Your task to perform on an android device: toggle notifications settings in the gmail app Image 0: 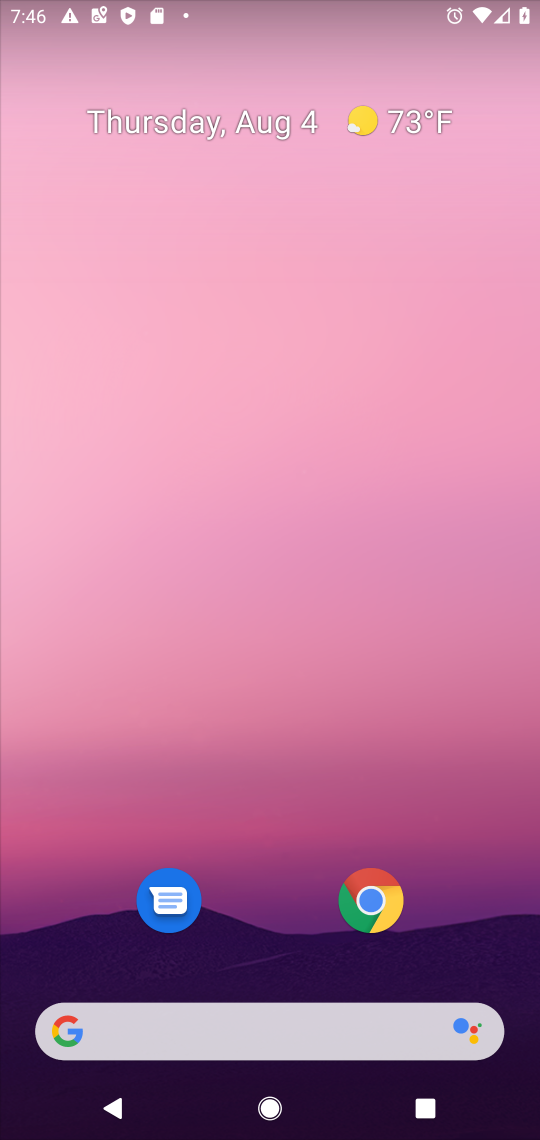
Step 0: drag from (206, 1035) to (440, 61)
Your task to perform on an android device: toggle notifications settings in the gmail app Image 1: 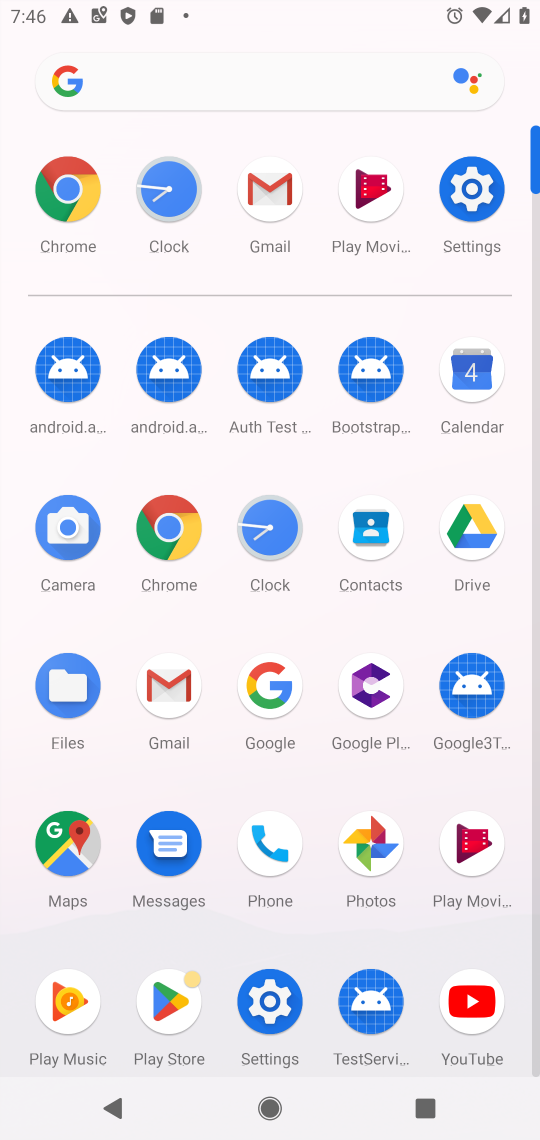
Step 1: click (270, 187)
Your task to perform on an android device: toggle notifications settings in the gmail app Image 2: 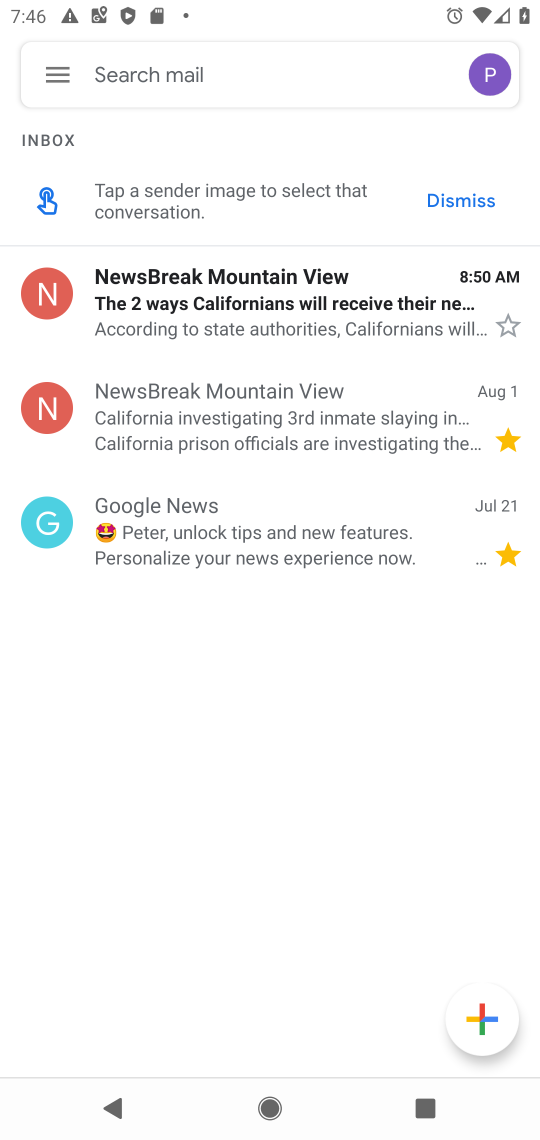
Step 2: click (59, 73)
Your task to perform on an android device: toggle notifications settings in the gmail app Image 3: 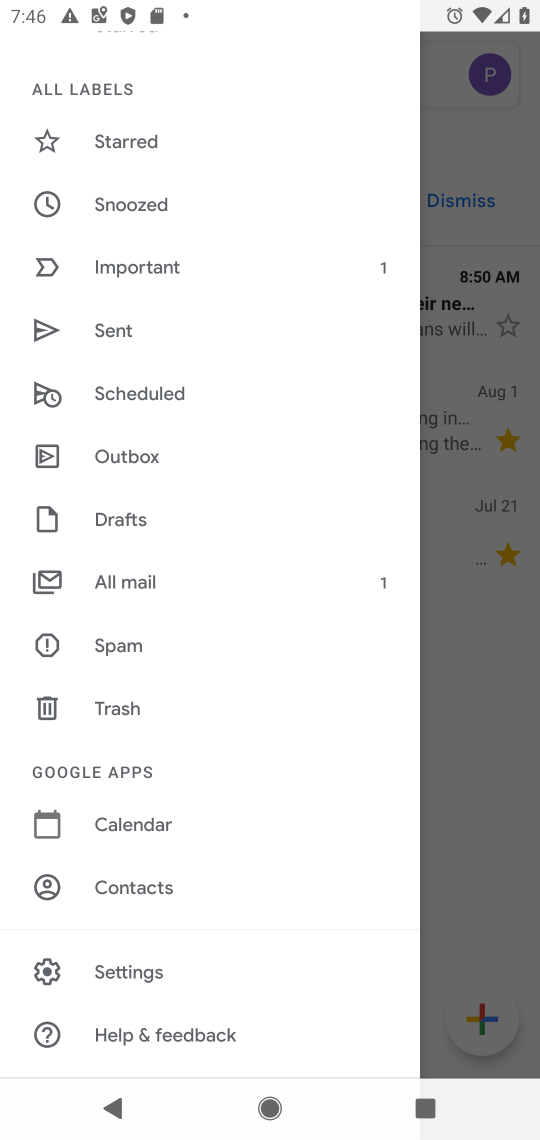
Step 3: click (140, 970)
Your task to perform on an android device: toggle notifications settings in the gmail app Image 4: 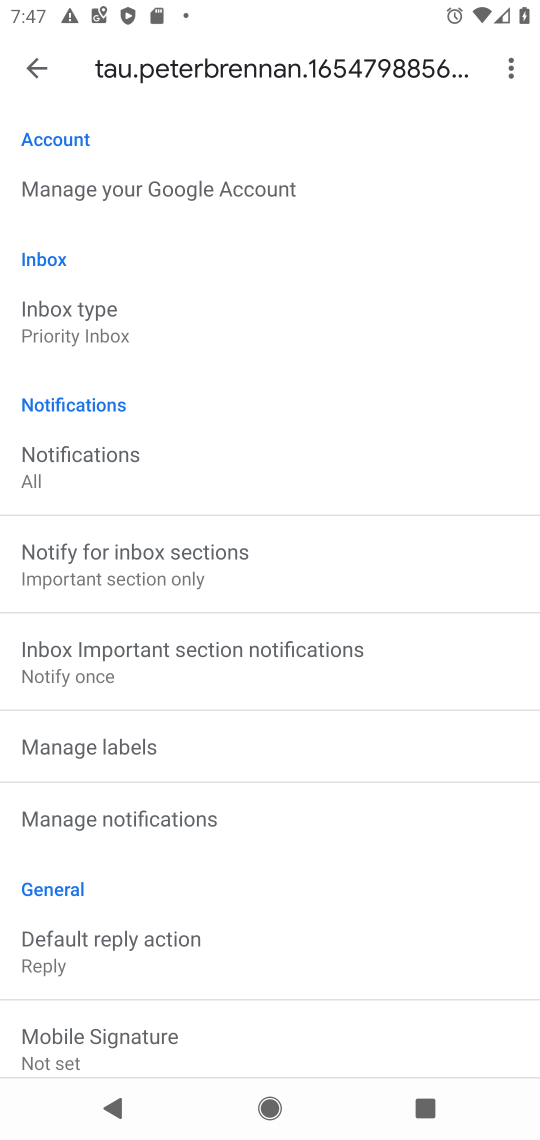
Step 4: click (90, 813)
Your task to perform on an android device: toggle notifications settings in the gmail app Image 5: 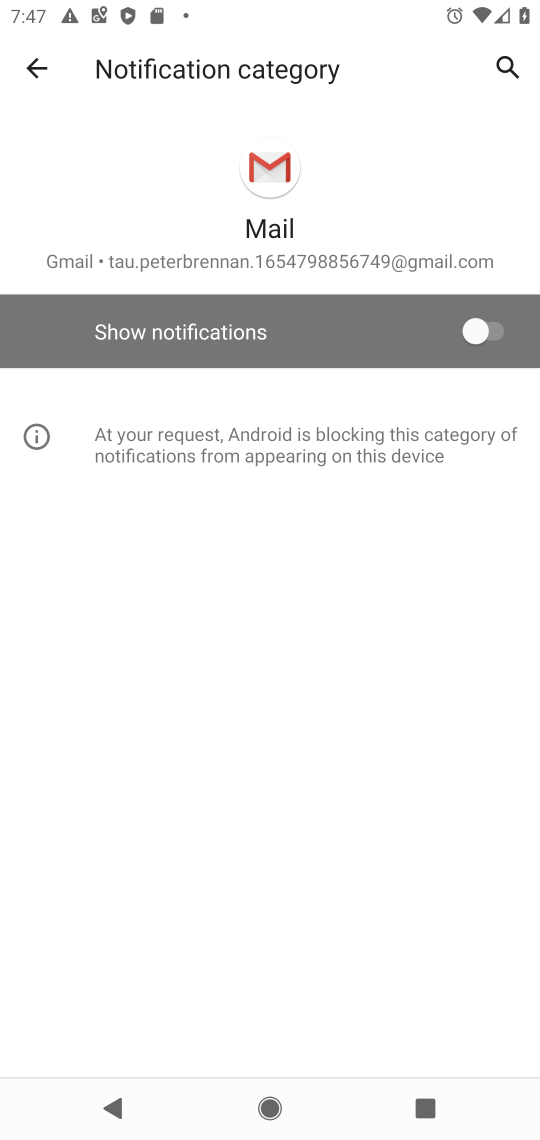
Step 5: click (476, 342)
Your task to perform on an android device: toggle notifications settings in the gmail app Image 6: 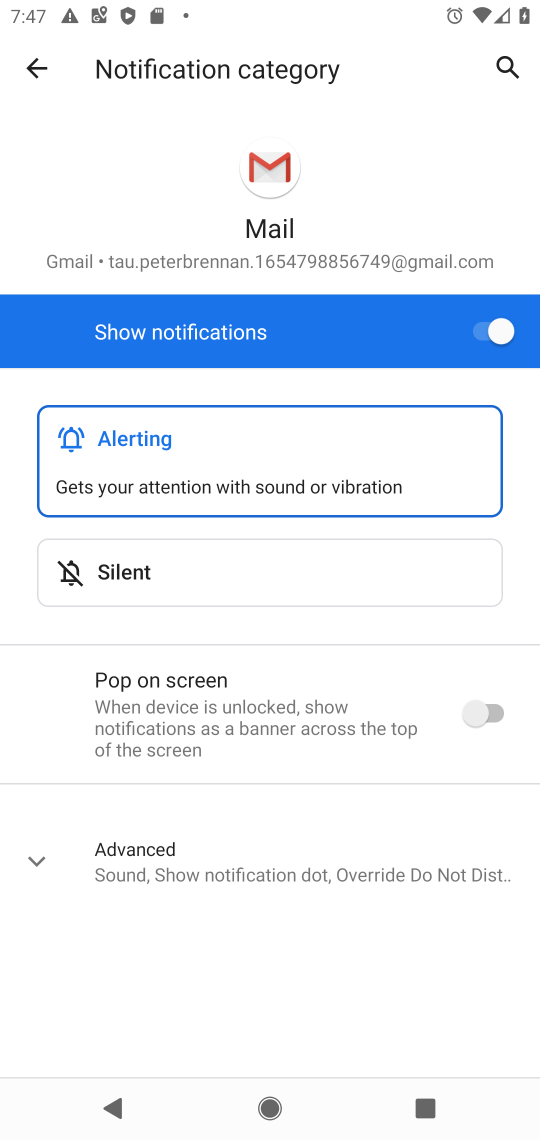
Step 6: task complete